Your task to perform on an android device: Open battery settings Image 0: 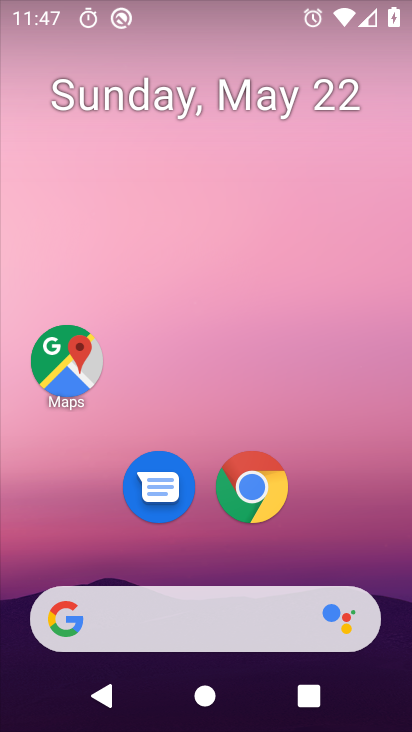
Step 0: drag from (348, 486) to (312, 187)
Your task to perform on an android device: Open battery settings Image 1: 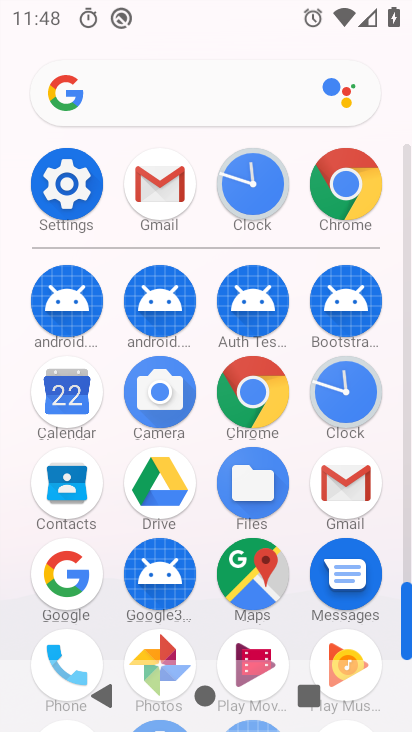
Step 1: click (73, 184)
Your task to perform on an android device: Open battery settings Image 2: 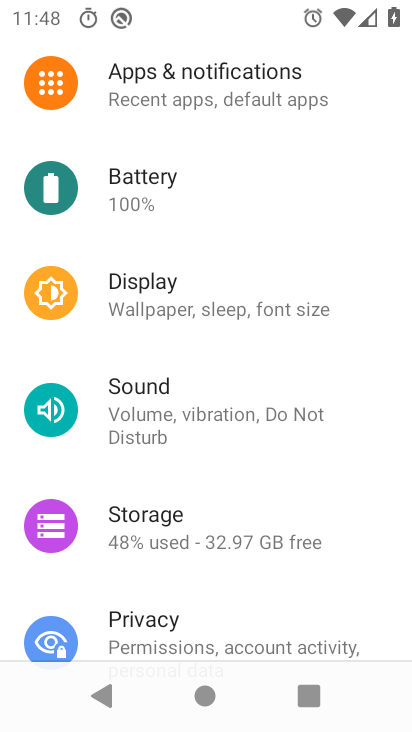
Step 2: click (162, 199)
Your task to perform on an android device: Open battery settings Image 3: 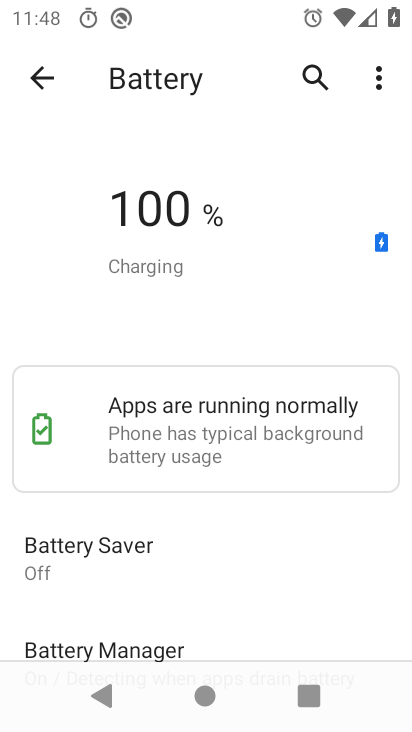
Step 3: task complete